Your task to perform on an android device: allow notifications from all sites in the chrome app Image 0: 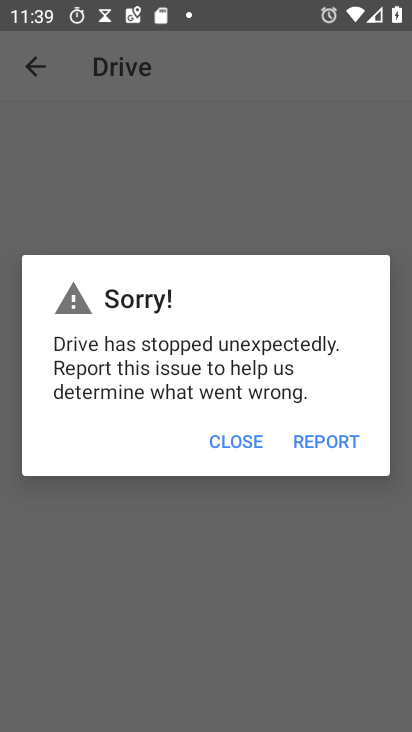
Step 0: press home button
Your task to perform on an android device: allow notifications from all sites in the chrome app Image 1: 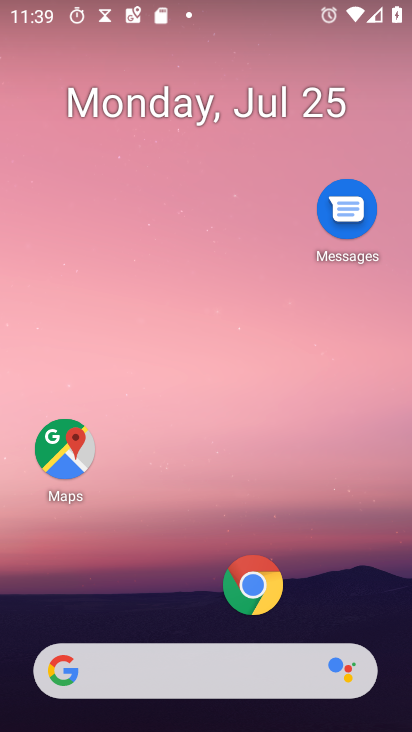
Step 1: click (249, 578)
Your task to perform on an android device: allow notifications from all sites in the chrome app Image 2: 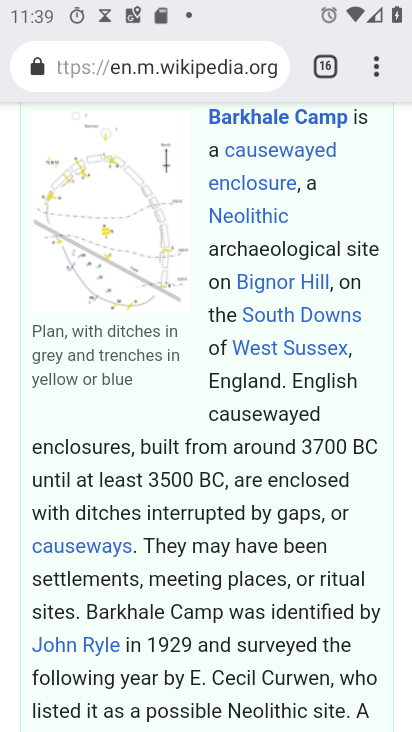
Step 2: drag from (375, 63) to (202, 595)
Your task to perform on an android device: allow notifications from all sites in the chrome app Image 3: 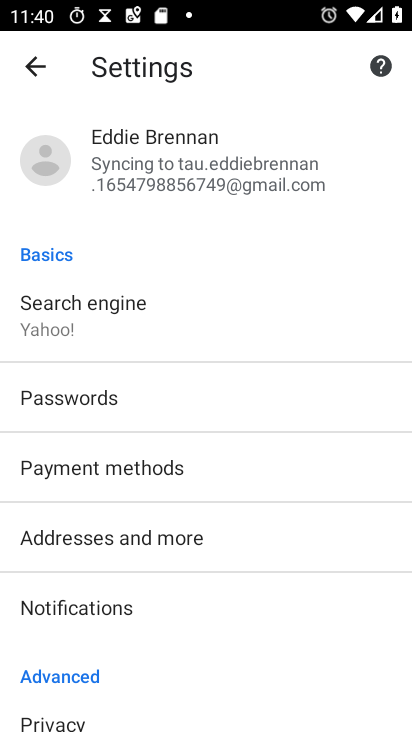
Step 3: drag from (129, 614) to (271, 223)
Your task to perform on an android device: allow notifications from all sites in the chrome app Image 4: 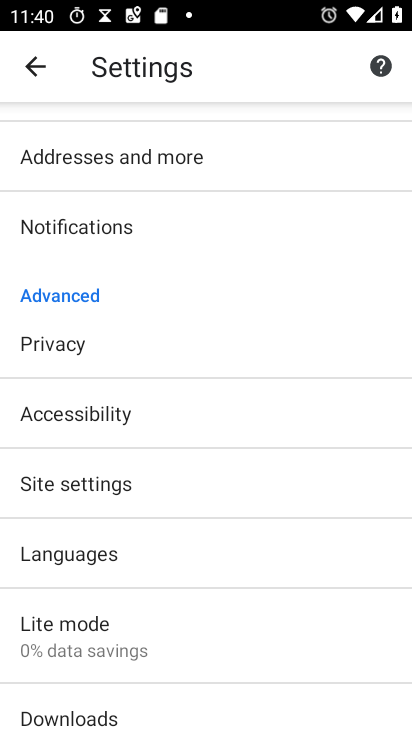
Step 4: click (101, 491)
Your task to perform on an android device: allow notifications from all sites in the chrome app Image 5: 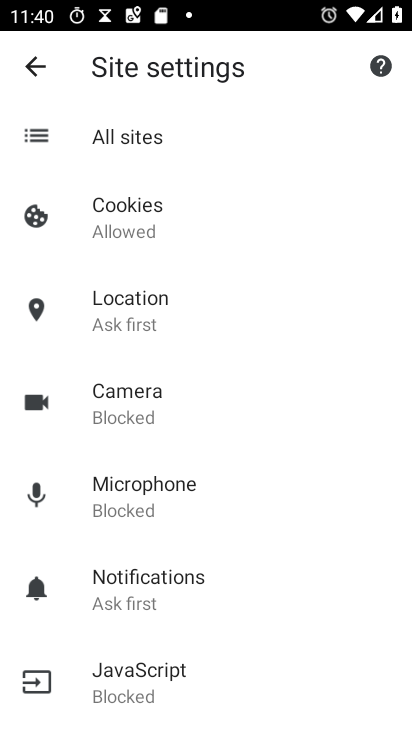
Step 5: click (135, 595)
Your task to perform on an android device: allow notifications from all sites in the chrome app Image 6: 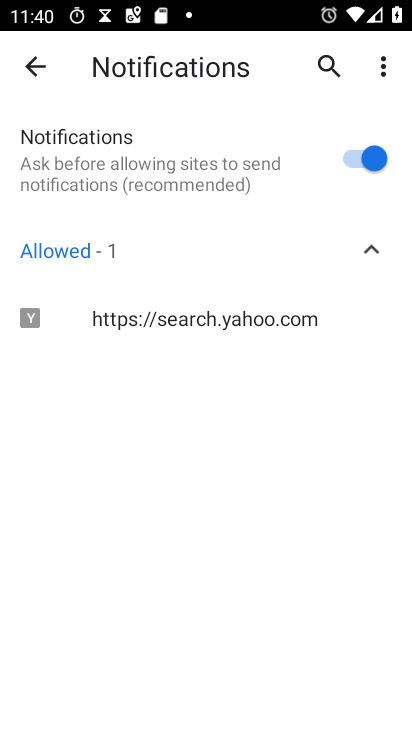
Step 6: task complete